Your task to perform on an android device: Go to CNN.com Image 0: 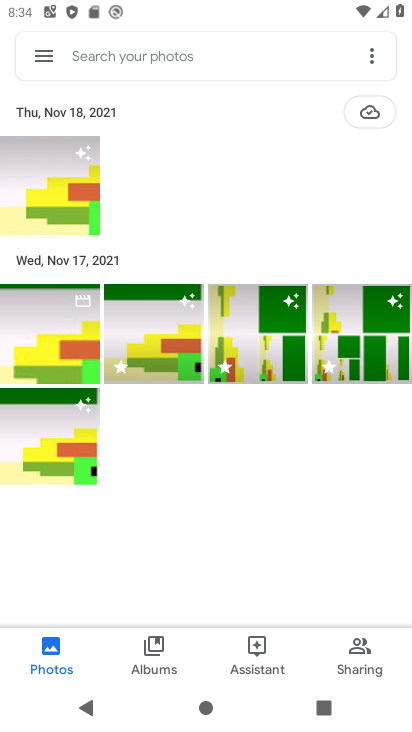
Step 0: press home button
Your task to perform on an android device: Go to CNN.com Image 1: 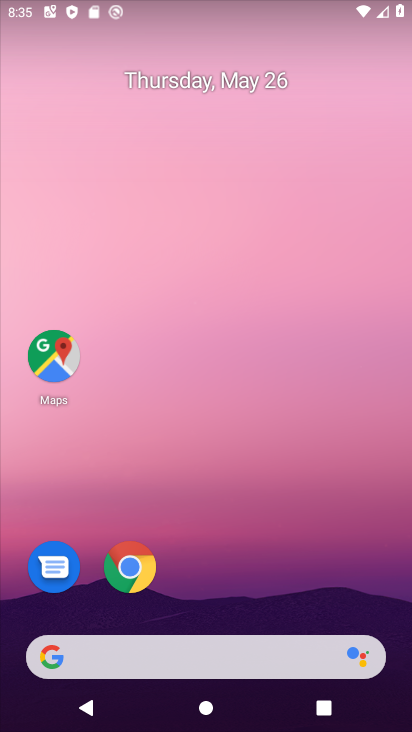
Step 1: click (113, 559)
Your task to perform on an android device: Go to CNN.com Image 2: 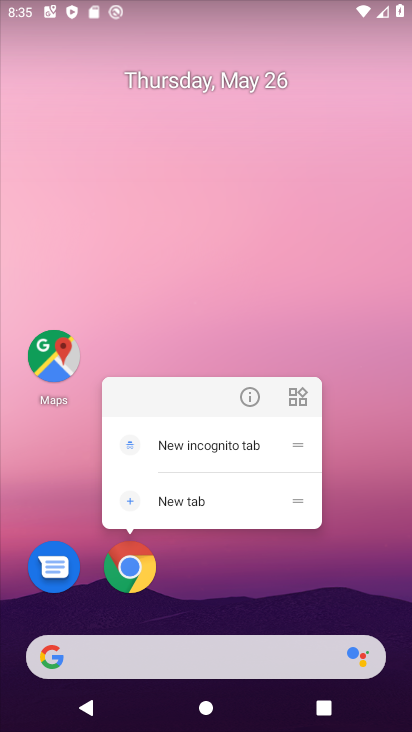
Step 2: click (126, 561)
Your task to perform on an android device: Go to CNN.com Image 3: 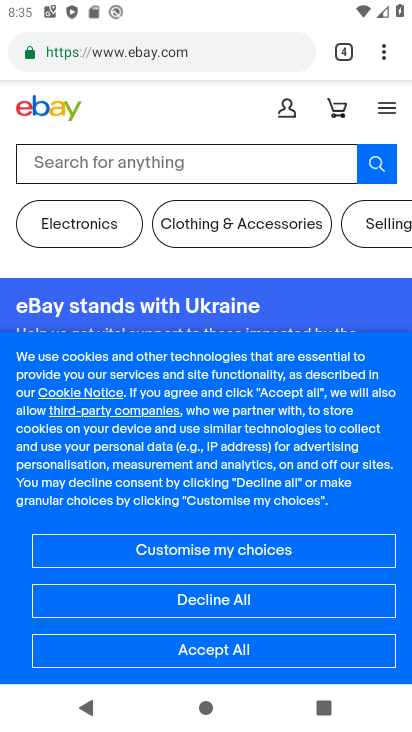
Step 3: drag from (379, 55) to (278, 97)
Your task to perform on an android device: Go to CNN.com Image 4: 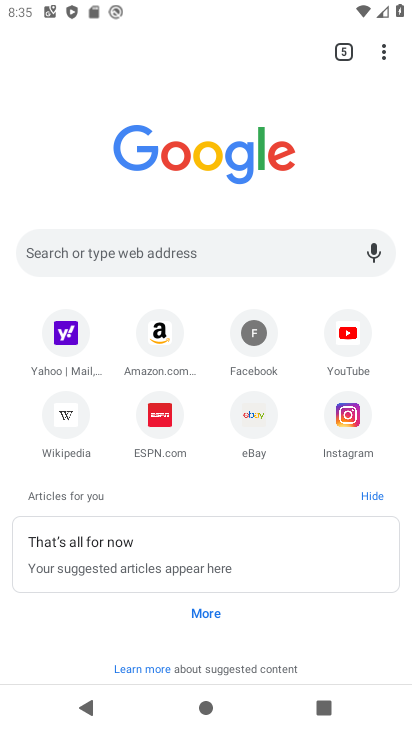
Step 4: click (113, 247)
Your task to perform on an android device: Go to CNN.com Image 5: 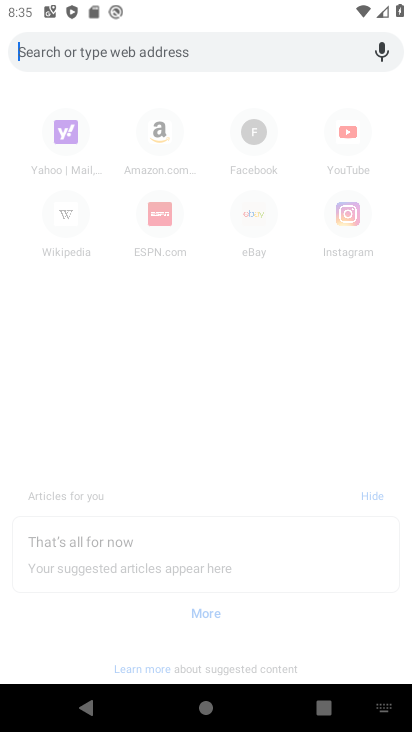
Step 5: type "cnn.com"
Your task to perform on an android device: Go to CNN.com Image 6: 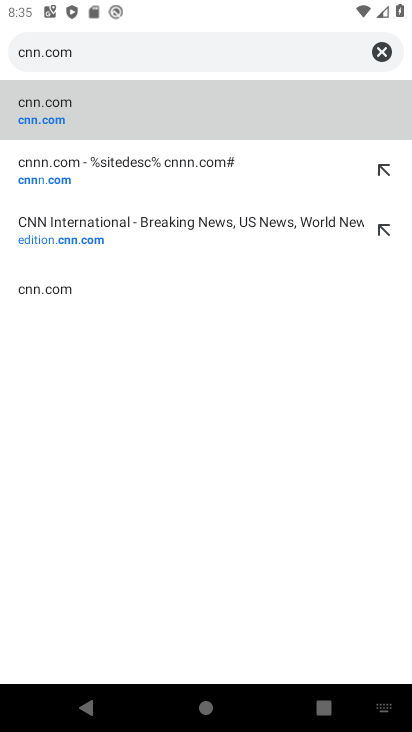
Step 6: click (47, 116)
Your task to perform on an android device: Go to CNN.com Image 7: 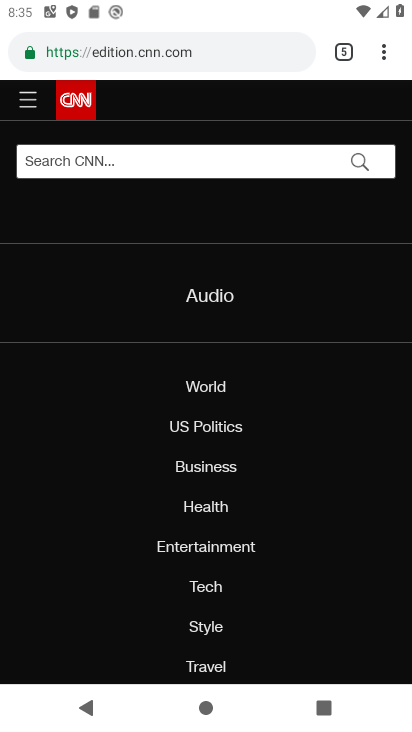
Step 7: task complete